Your task to perform on an android device: Open location settings Image 0: 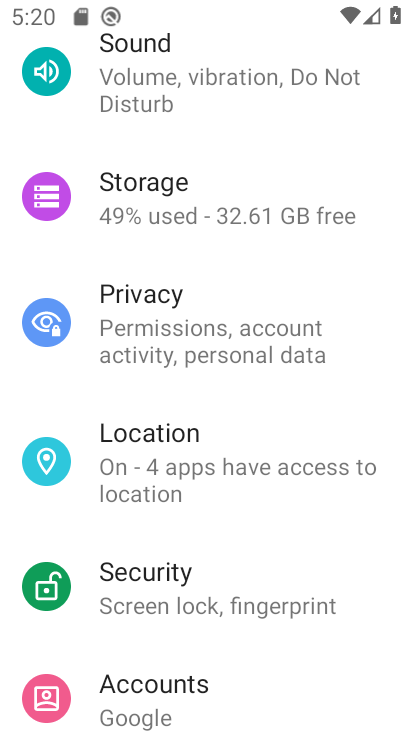
Step 0: click (170, 449)
Your task to perform on an android device: Open location settings Image 1: 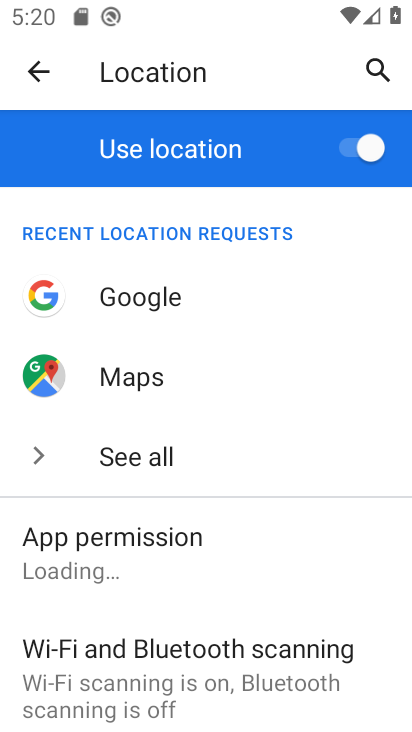
Step 1: task complete